Your task to perform on an android device: What's the weather like inToronto? Image 0: 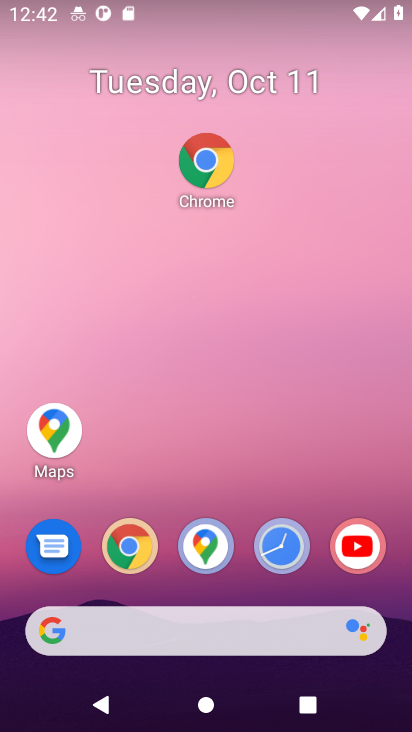
Step 0: click (130, 547)
Your task to perform on an android device: What's the weather like inToronto? Image 1: 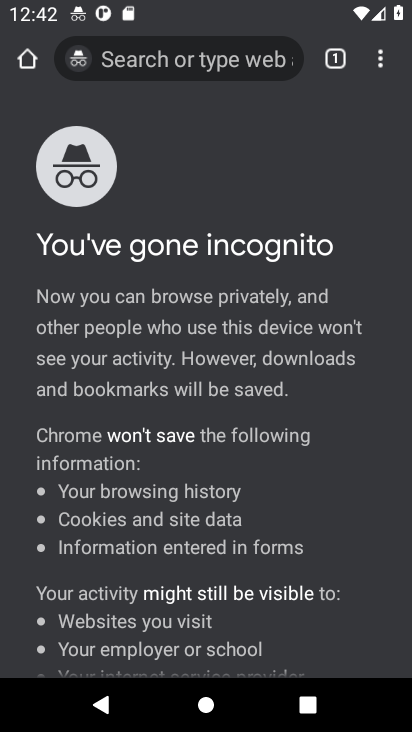
Step 1: click (336, 59)
Your task to perform on an android device: What's the weather like inToronto? Image 2: 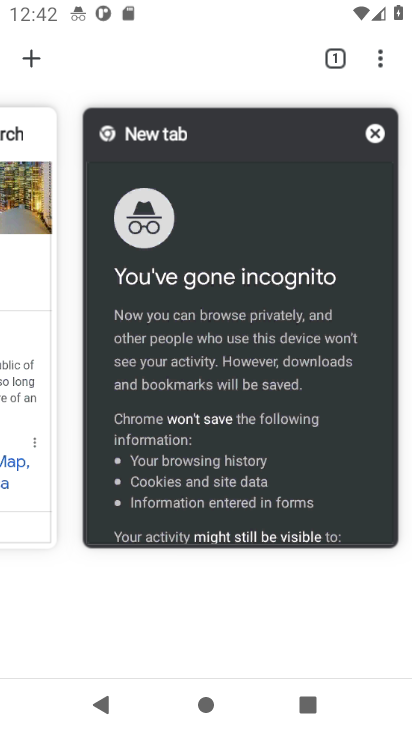
Step 2: click (372, 134)
Your task to perform on an android device: What's the weather like inToronto? Image 3: 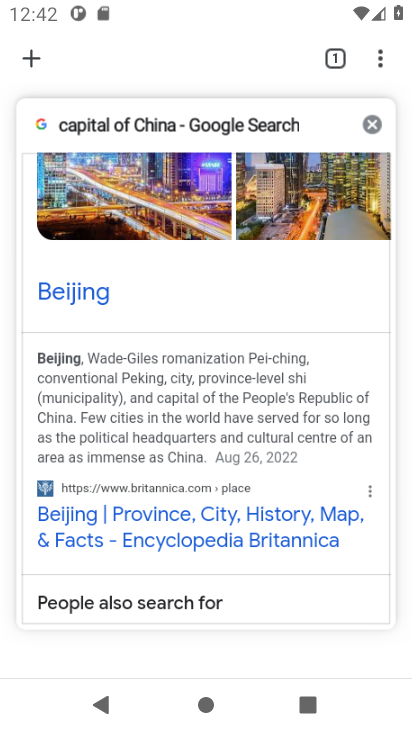
Step 3: click (371, 124)
Your task to perform on an android device: What's the weather like inToronto? Image 4: 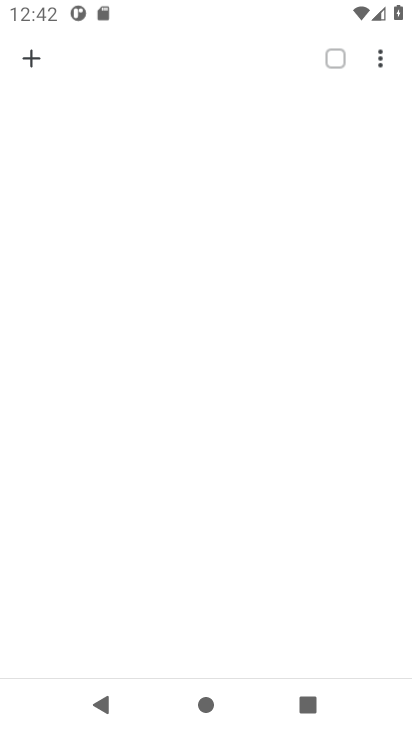
Step 4: click (23, 54)
Your task to perform on an android device: What's the weather like inToronto? Image 5: 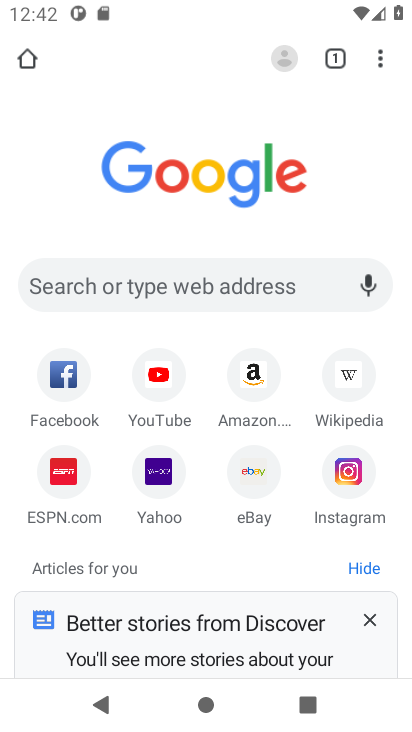
Step 5: click (191, 284)
Your task to perform on an android device: What's the weather like inToronto? Image 6: 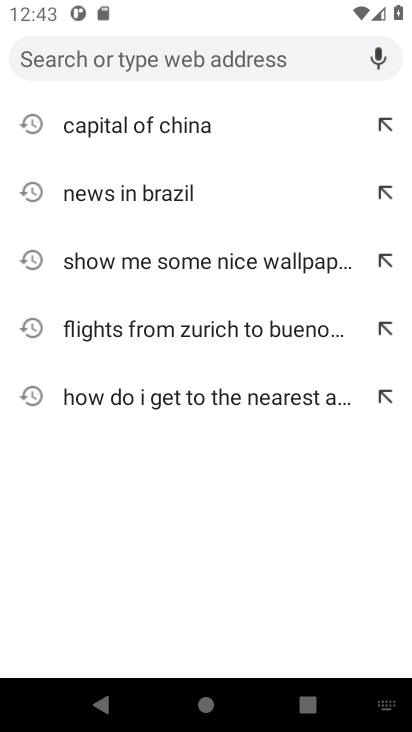
Step 6: type "weather in Toronto"
Your task to perform on an android device: What's the weather like inToronto? Image 7: 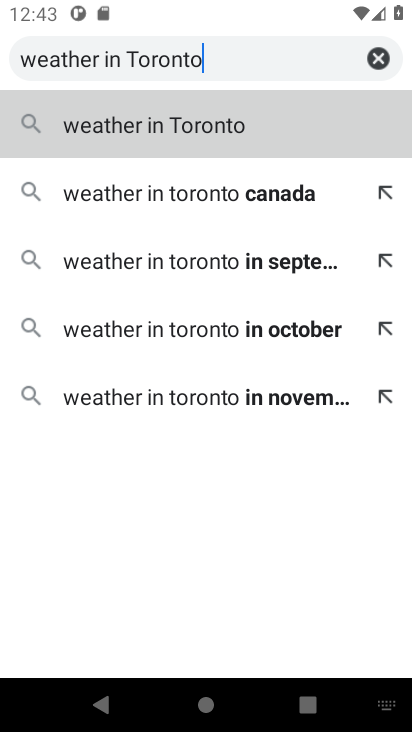
Step 7: type ""
Your task to perform on an android device: What's the weather like inToronto? Image 8: 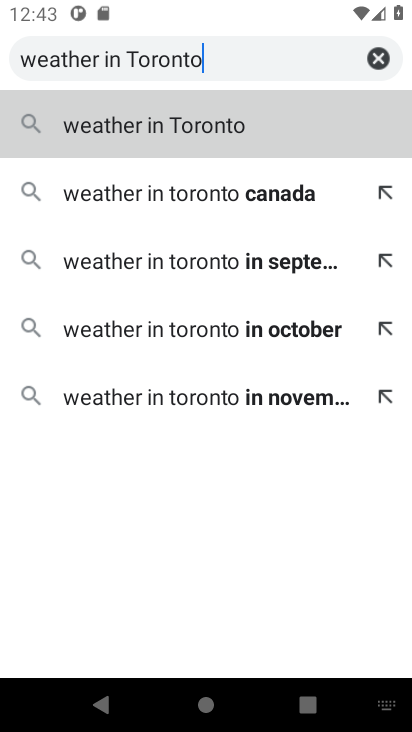
Step 8: press enter
Your task to perform on an android device: What's the weather like inToronto? Image 9: 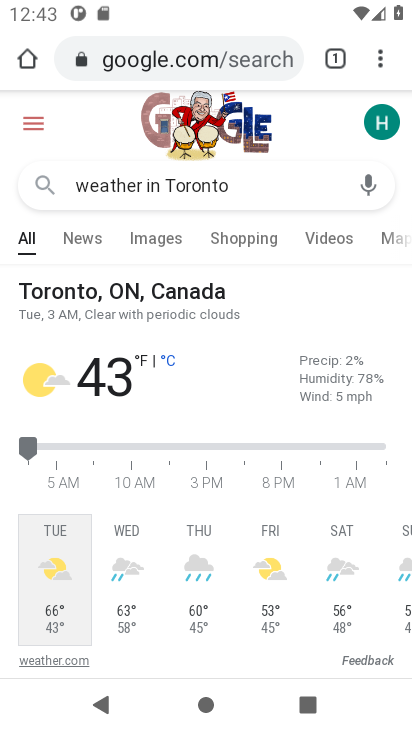
Step 9: task complete